Your task to perform on an android device: What's the weather? Image 0: 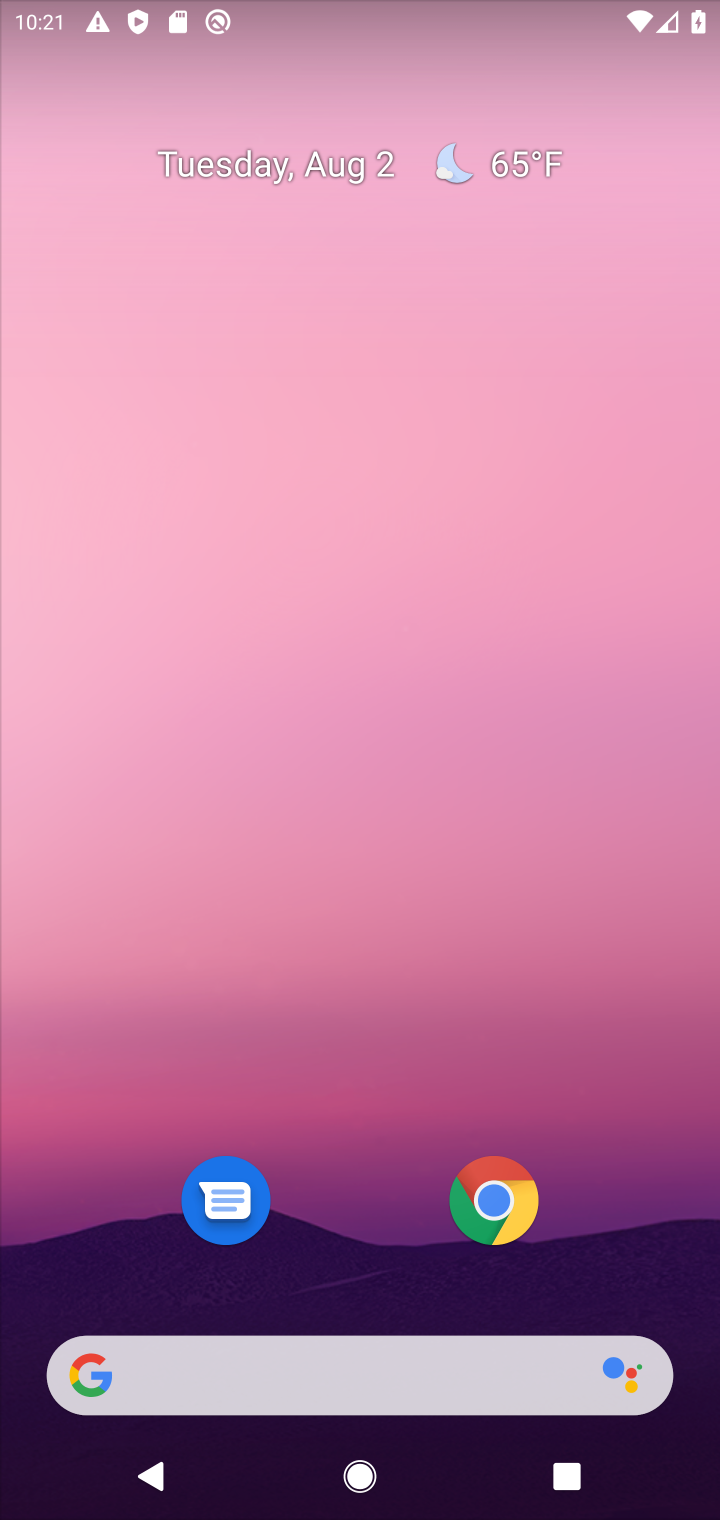
Step 0: press home button
Your task to perform on an android device: What's the weather? Image 1: 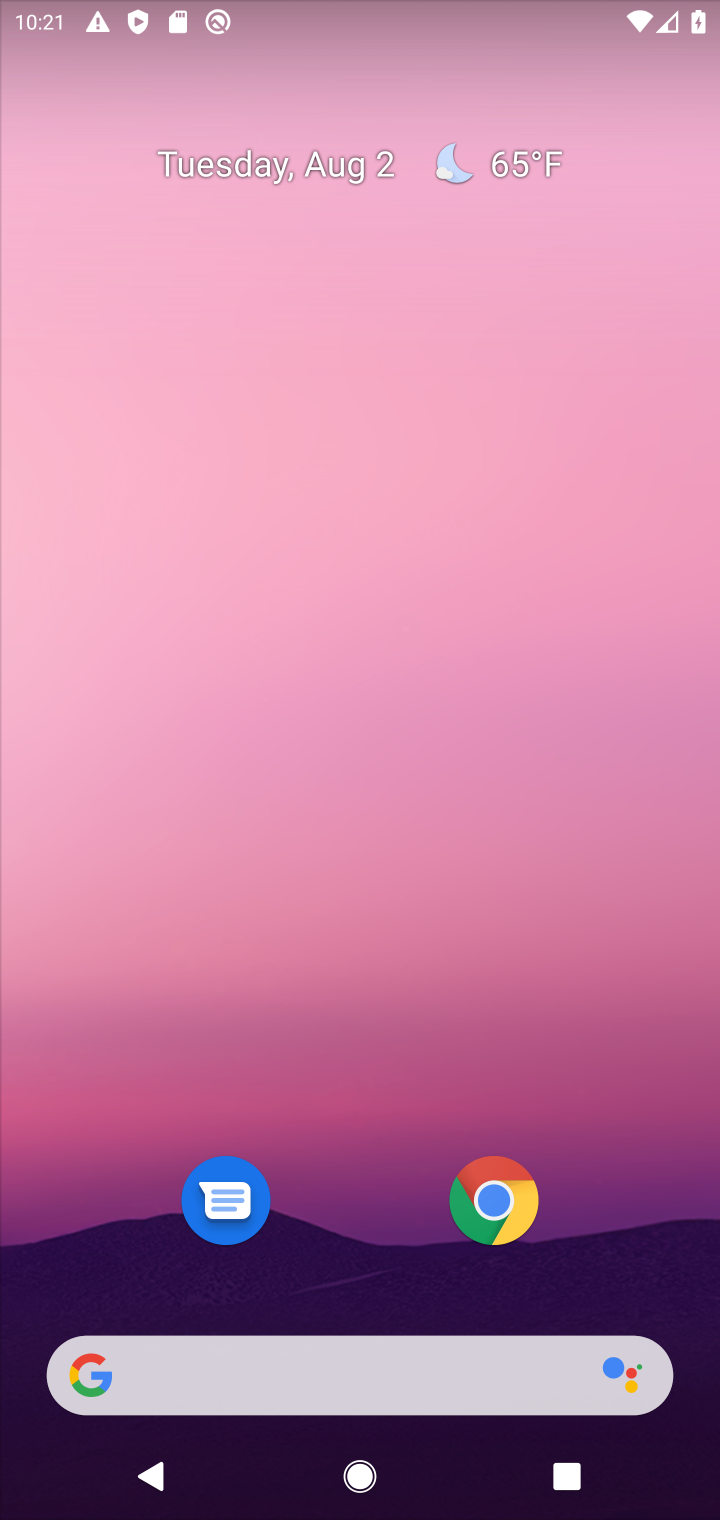
Step 1: click (505, 157)
Your task to perform on an android device: What's the weather? Image 2: 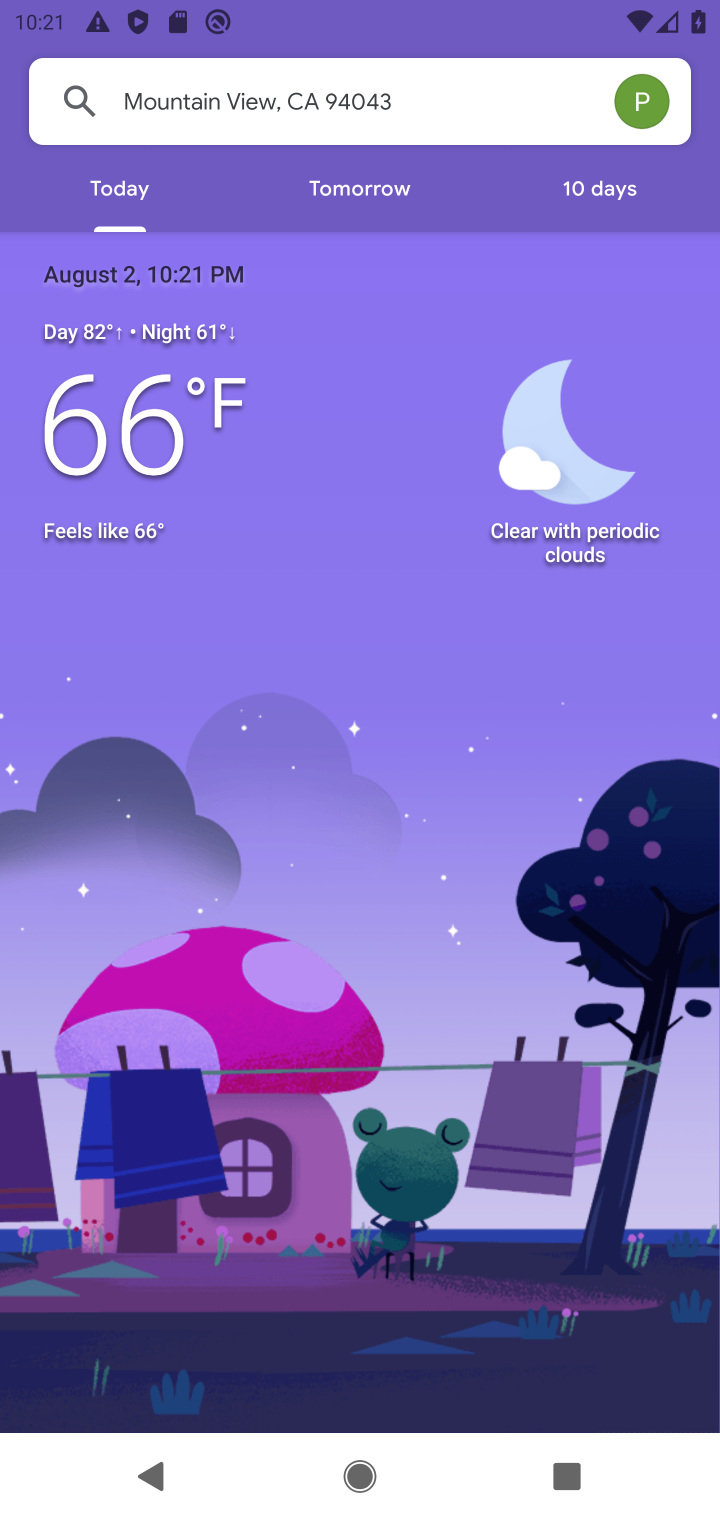
Step 2: task complete